Your task to perform on an android device: check the backup settings in the google photos Image 0: 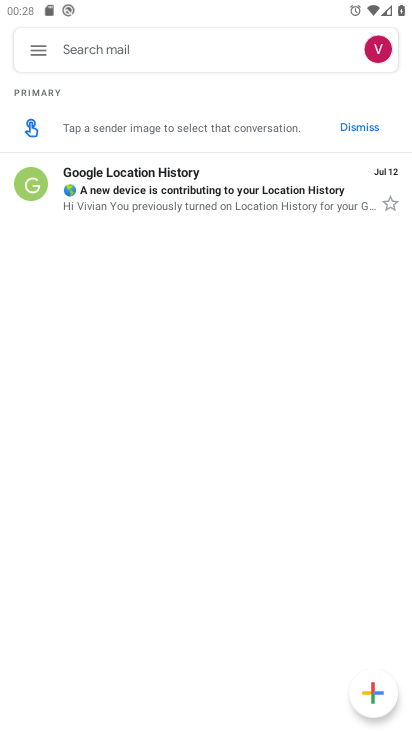
Step 0: press home button
Your task to perform on an android device: check the backup settings in the google photos Image 1: 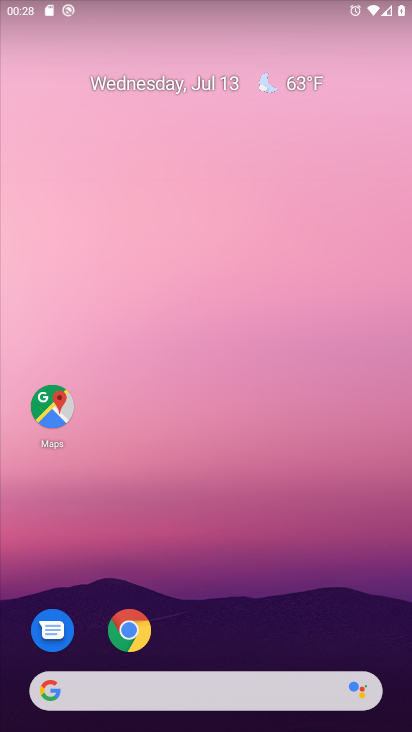
Step 1: drag from (182, 683) to (147, 19)
Your task to perform on an android device: check the backup settings in the google photos Image 2: 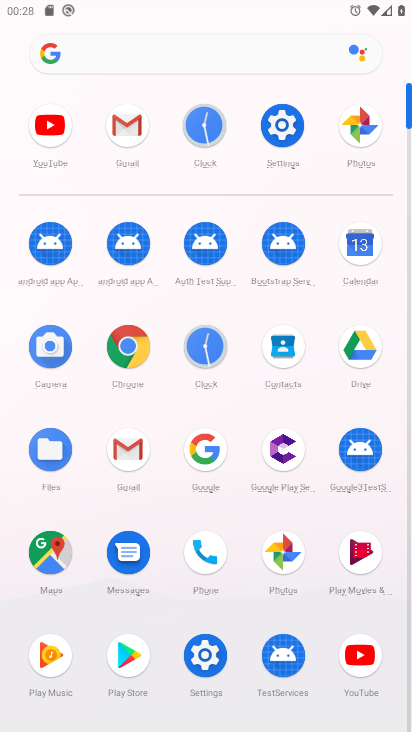
Step 2: click (280, 562)
Your task to perform on an android device: check the backup settings in the google photos Image 3: 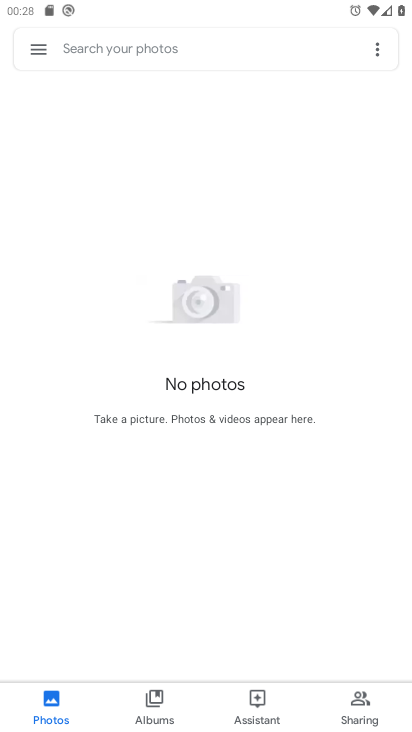
Step 3: click (41, 43)
Your task to perform on an android device: check the backup settings in the google photos Image 4: 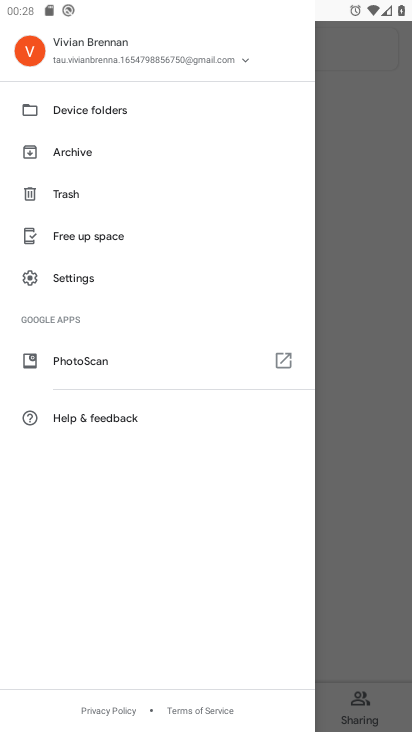
Step 4: click (72, 287)
Your task to perform on an android device: check the backup settings in the google photos Image 5: 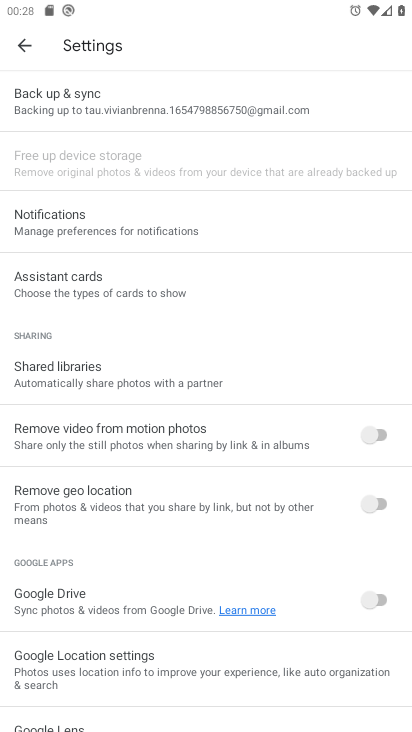
Step 5: click (122, 114)
Your task to perform on an android device: check the backup settings in the google photos Image 6: 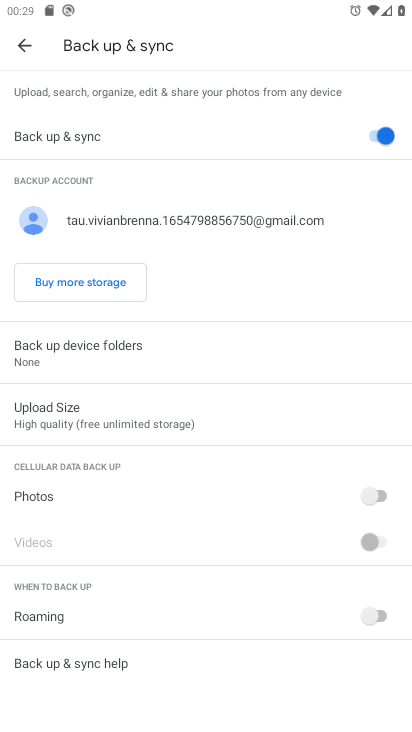
Step 6: task complete